Your task to perform on an android device: Is it going to rain today? Image 0: 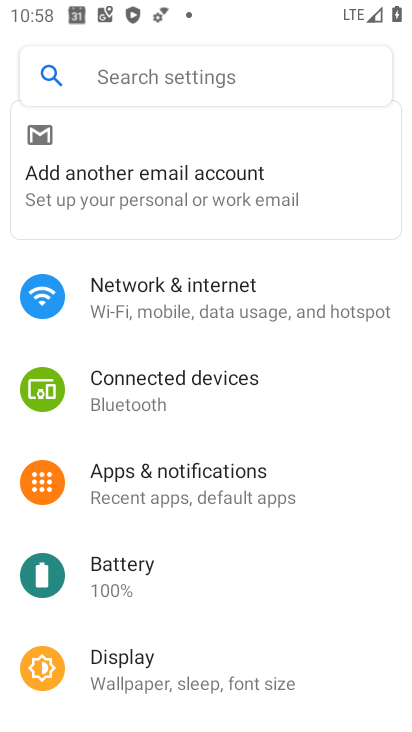
Step 0: press home button
Your task to perform on an android device: Is it going to rain today? Image 1: 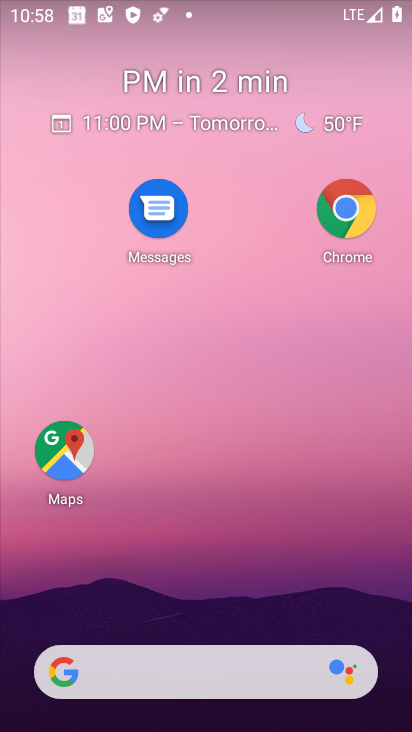
Step 1: click (171, 664)
Your task to perform on an android device: Is it going to rain today? Image 2: 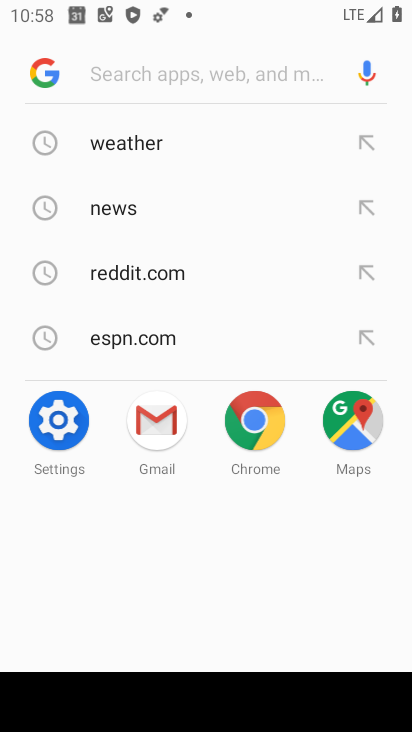
Step 2: click (137, 146)
Your task to perform on an android device: Is it going to rain today? Image 3: 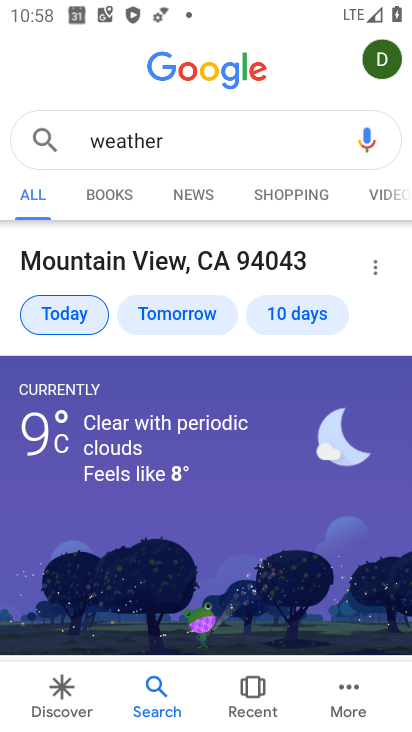
Step 3: click (137, 478)
Your task to perform on an android device: Is it going to rain today? Image 4: 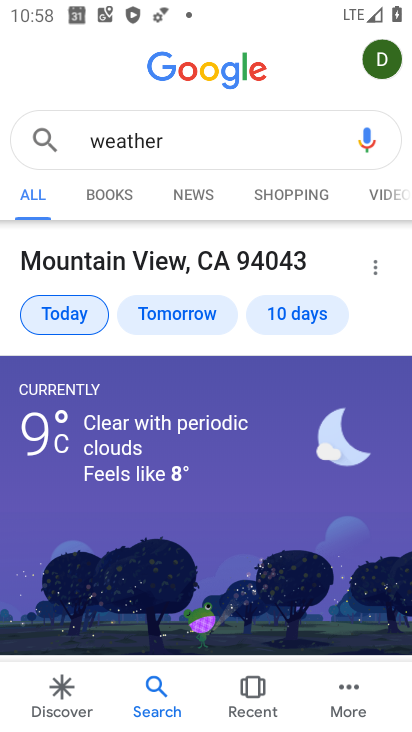
Step 4: click (324, 517)
Your task to perform on an android device: Is it going to rain today? Image 5: 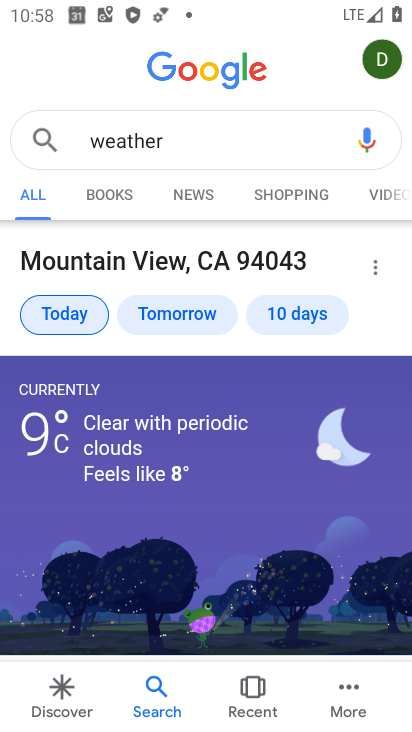
Step 5: task complete